Your task to perform on an android device: Go to battery settings Image 0: 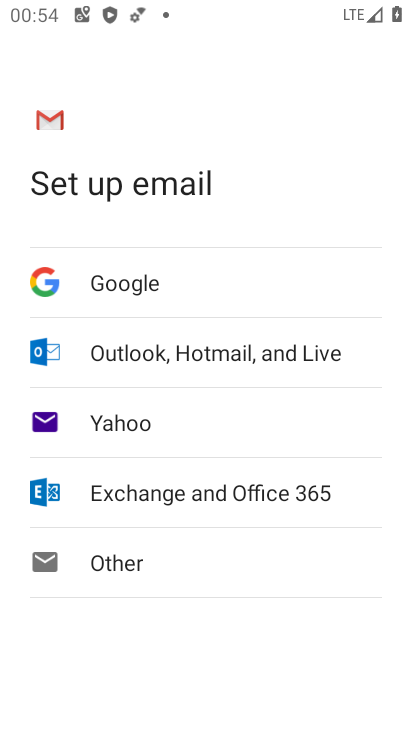
Step 0: press home button
Your task to perform on an android device: Go to battery settings Image 1: 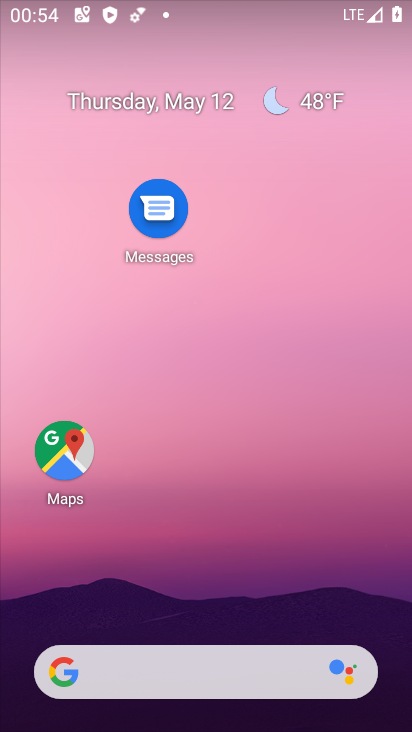
Step 1: drag from (197, 622) to (140, 0)
Your task to perform on an android device: Go to battery settings Image 2: 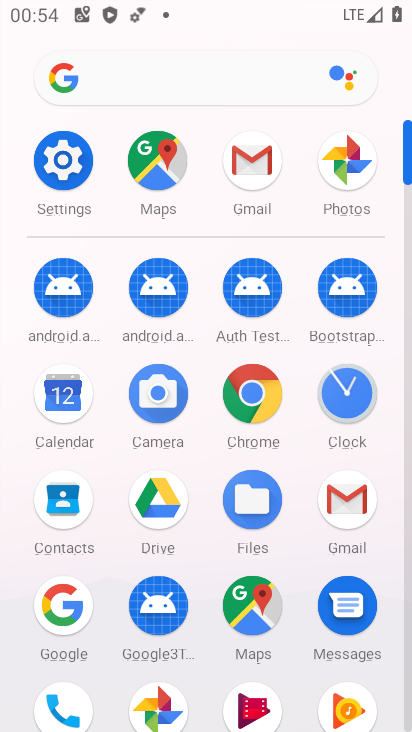
Step 2: click (60, 148)
Your task to perform on an android device: Go to battery settings Image 3: 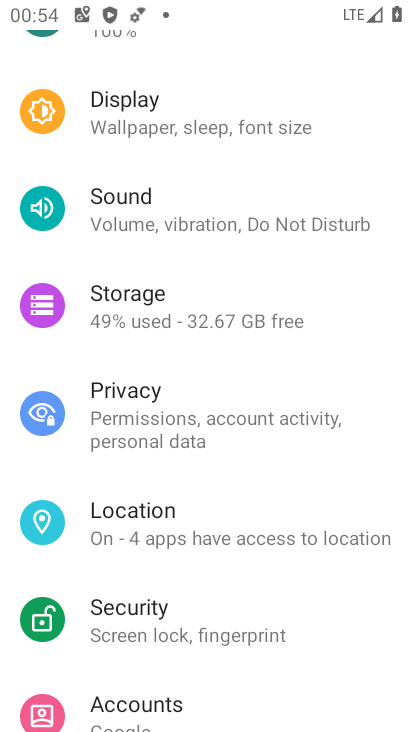
Step 3: drag from (105, 224) to (108, 346)
Your task to perform on an android device: Go to battery settings Image 4: 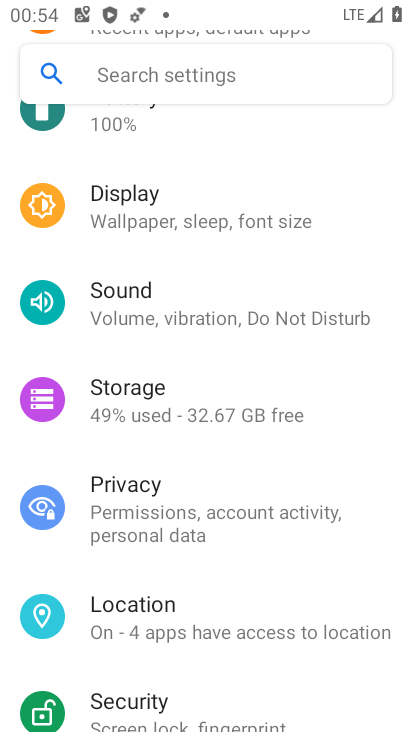
Step 4: click (118, 140)
Your task to perform on an android device: Go to battery settings Image 5: 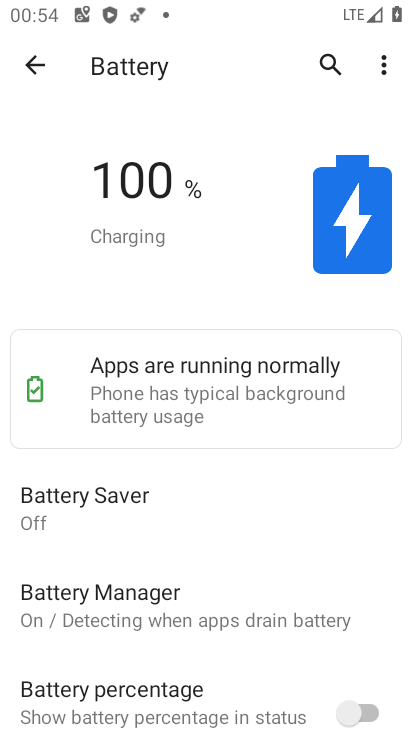
Step 5: task complete